Your task to perform on an android device: Clear the shopping cart on walmart.com. Add "razer naga" to the cart on walmart.com Image 0: 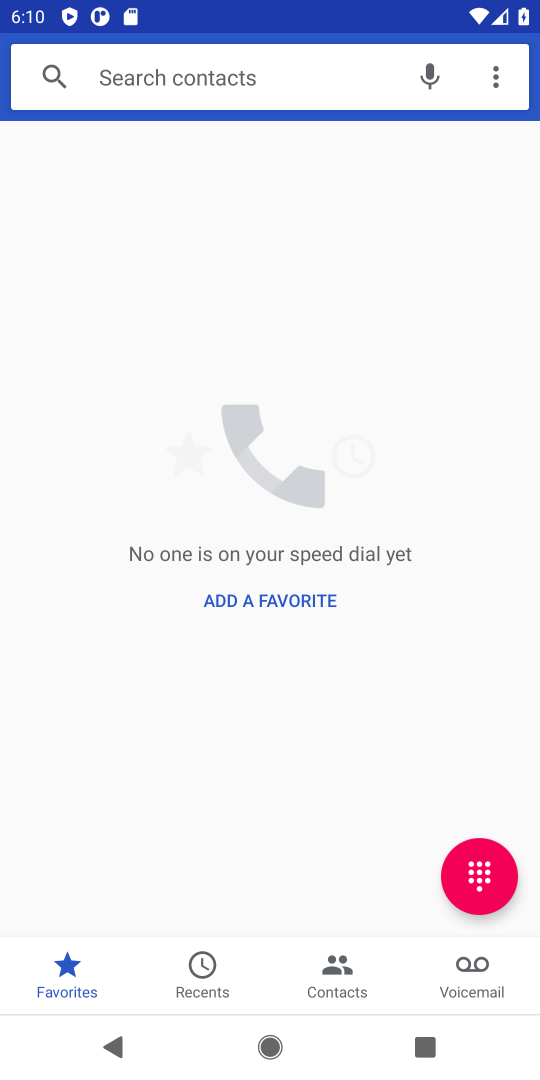
Step 0: press home button
Your task to perform on an android device: Clear the shopping cart on walmart.com. Add "razer naga" to the cart on walmart.com Image 1: 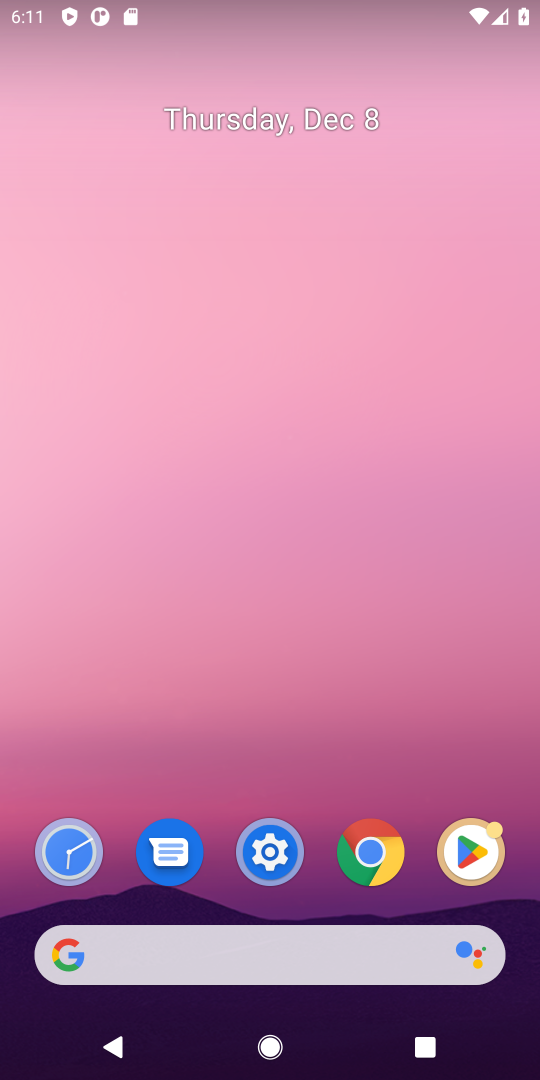
Step 1: click (191, 983)
Your task to perform on an android device: Clear the shopping cart on walmart.com. Add "razer naga" to the cart on walmart.com Image 2: 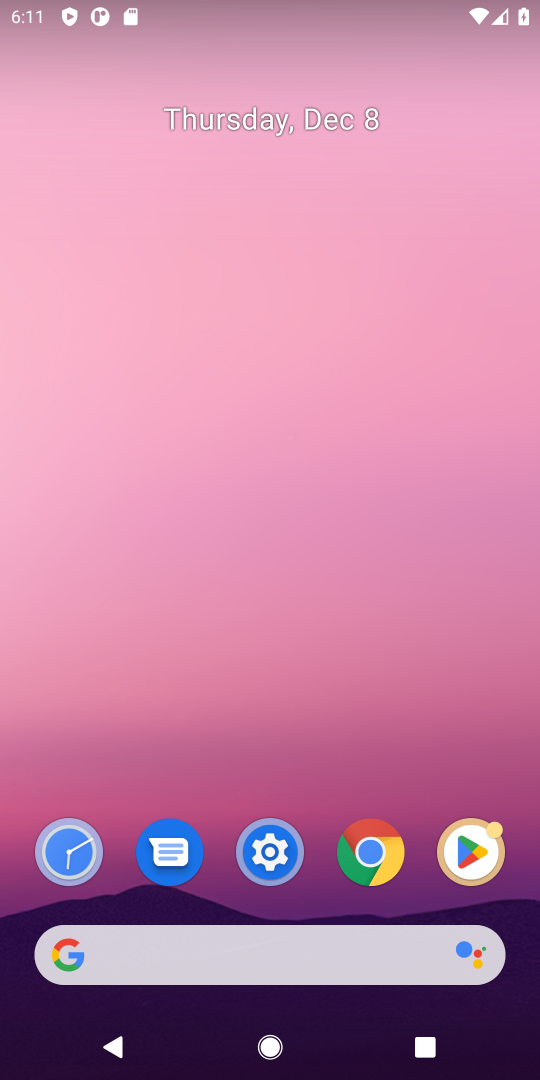
Step 2: click (222, 962)
Your task to perform on an android device: Clear the shopping cart on walmart.com. Add "razer naga" to the cart on walmart.com Image 3: 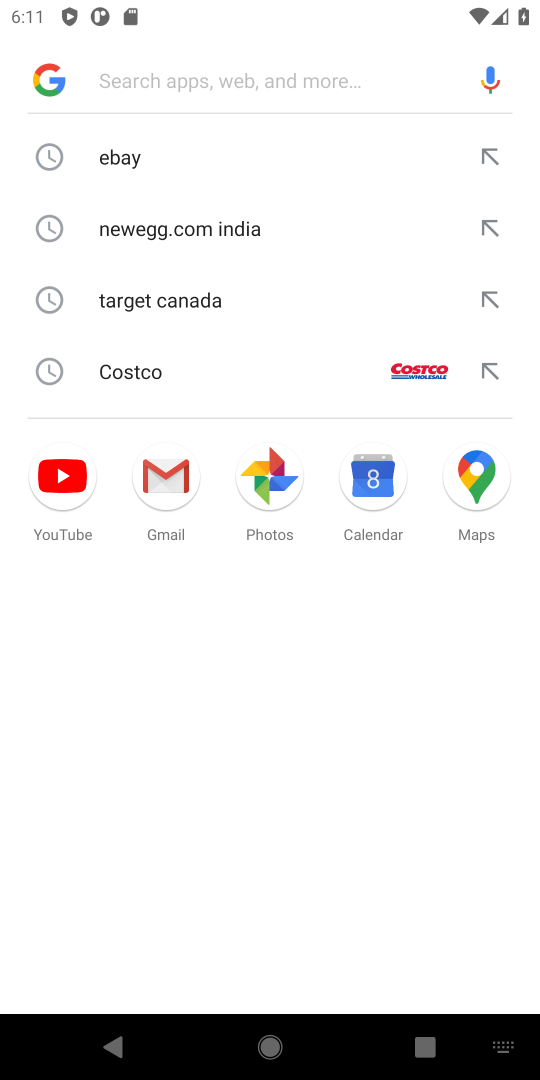
Step 3: type "walmart"
Your task to perform on an android device: Clear the shopping cart on walmart.com. Add "razer naga" to the cart on walmart.com Image 4: 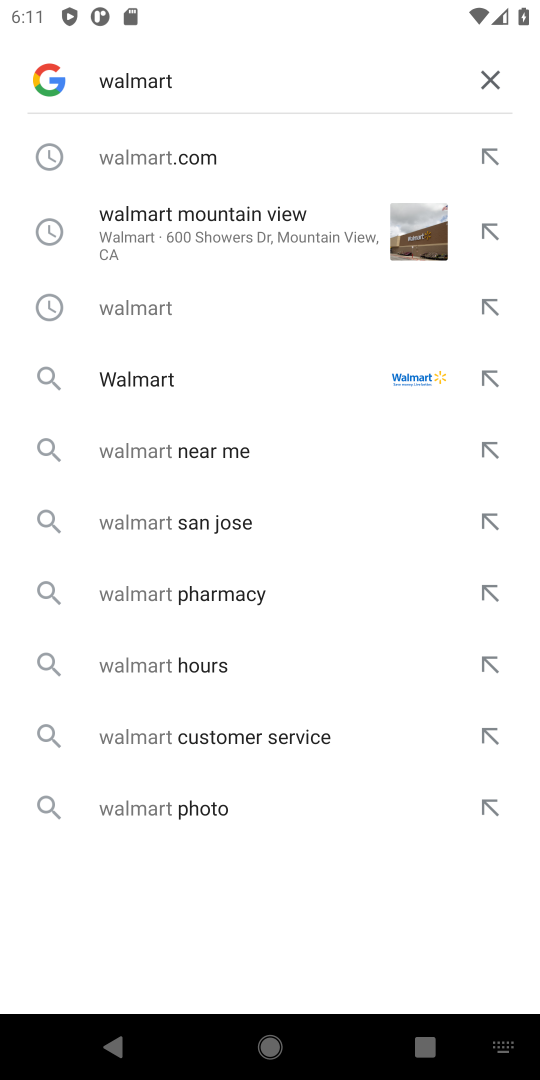
Step 4: click (178, 167)
Your task to perform on an android device: Clear the shopping cart on walmart.com. Add "razer naga" to the cart on walmart.com Image 5: 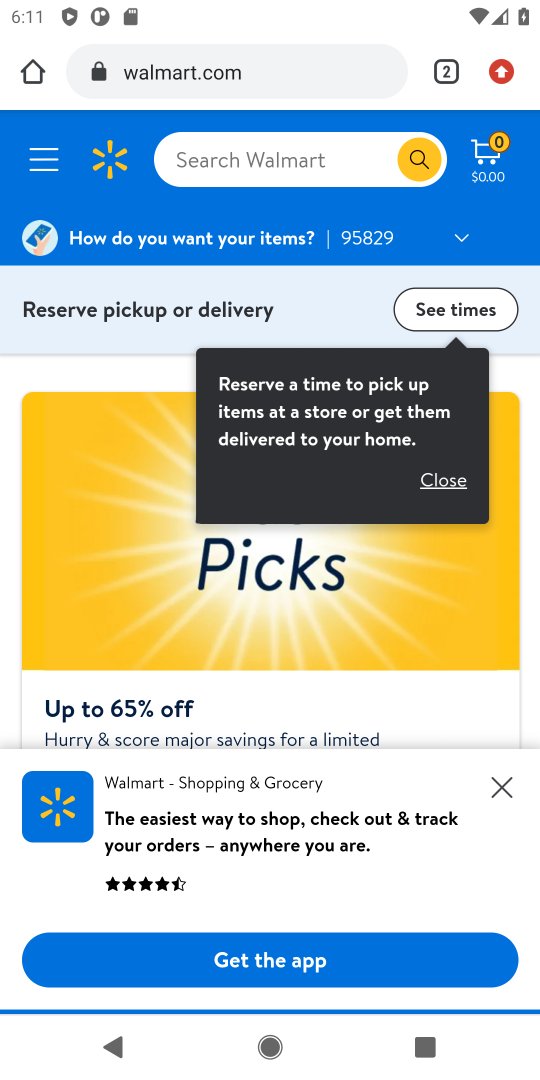
Step 5: click (178, 167)
Your task to perform on an android device: Clear the shopping cart on walmart.com. Add "razer naga" to the cart on walmart.com Image 6: 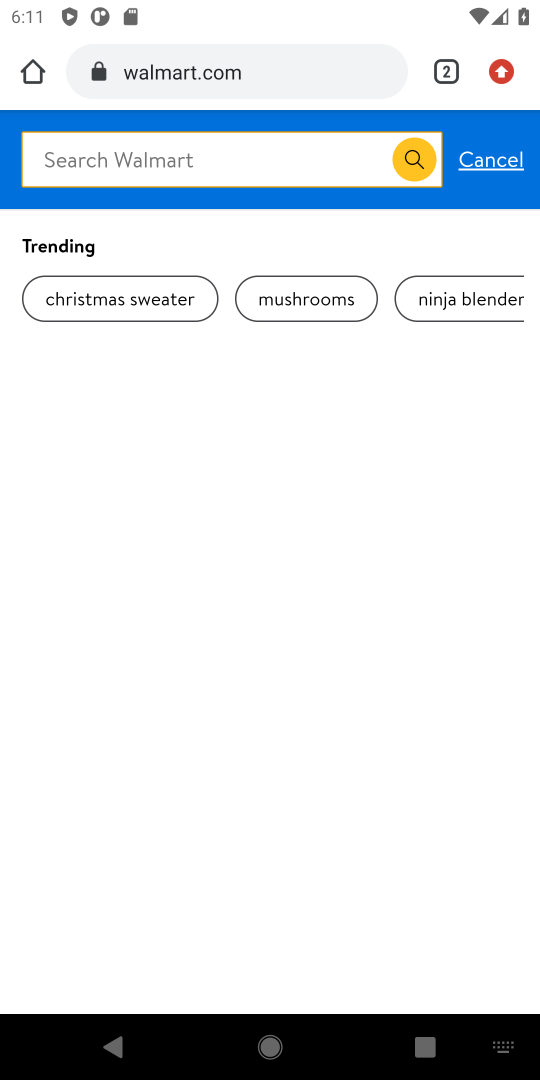
Step 6: type "razer naga"
Your task to perform on an android device: Clear the shopping cart on walmart.com. Add "razer naga" to the cart on walmart.com Image 7: 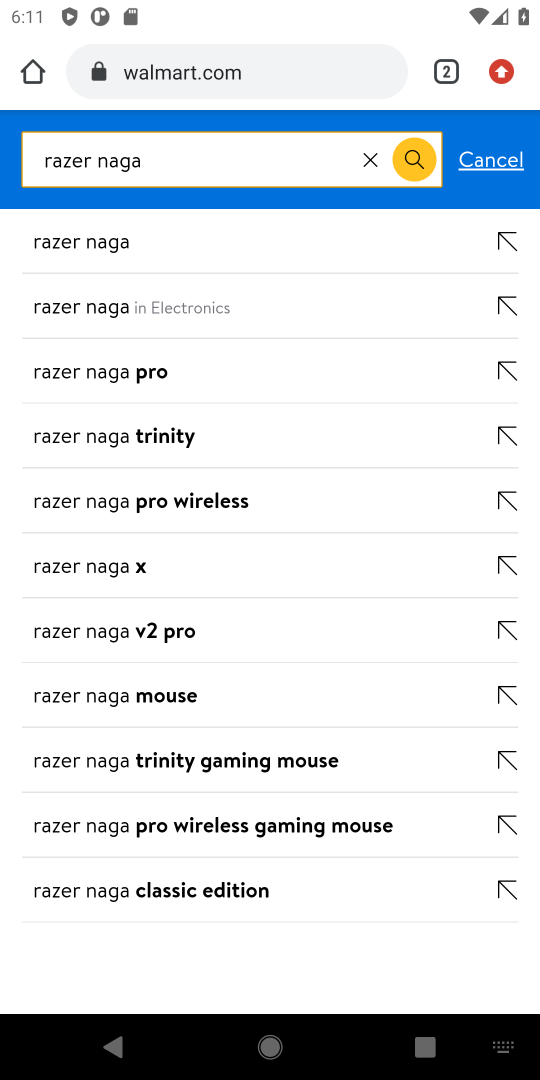
Step 7: click (181, 232)
Your task to perform on an android device: Clear the shopping cart on walmart.com. Add "razer naga" to the cart on walmart.com Image 8: 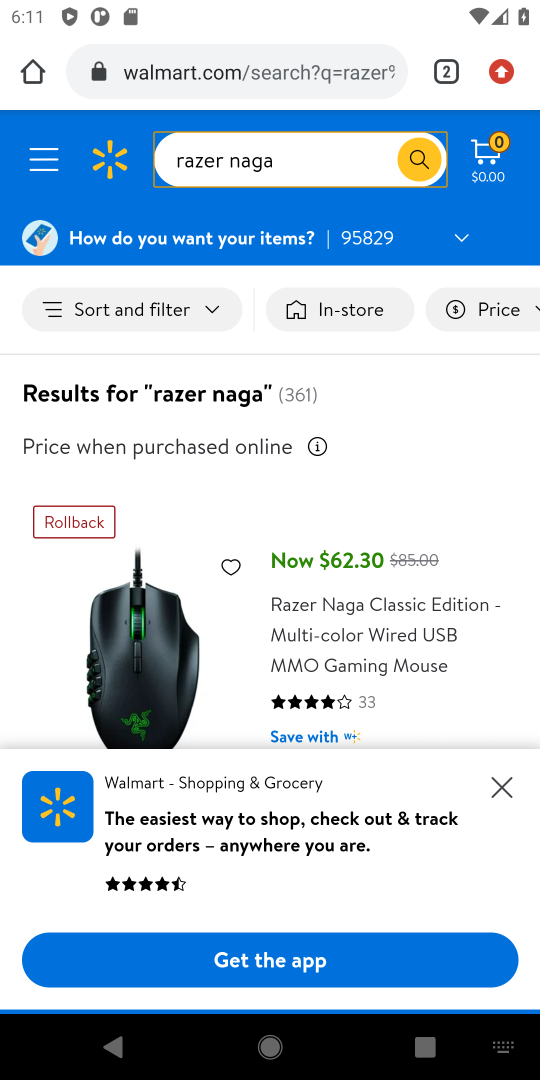
Step 8: click (495, 804)
Your task to perform on an android device: Clear the shopping cart on walmart.com. Add "razer naga" to the cart on walmart.com Image 9: 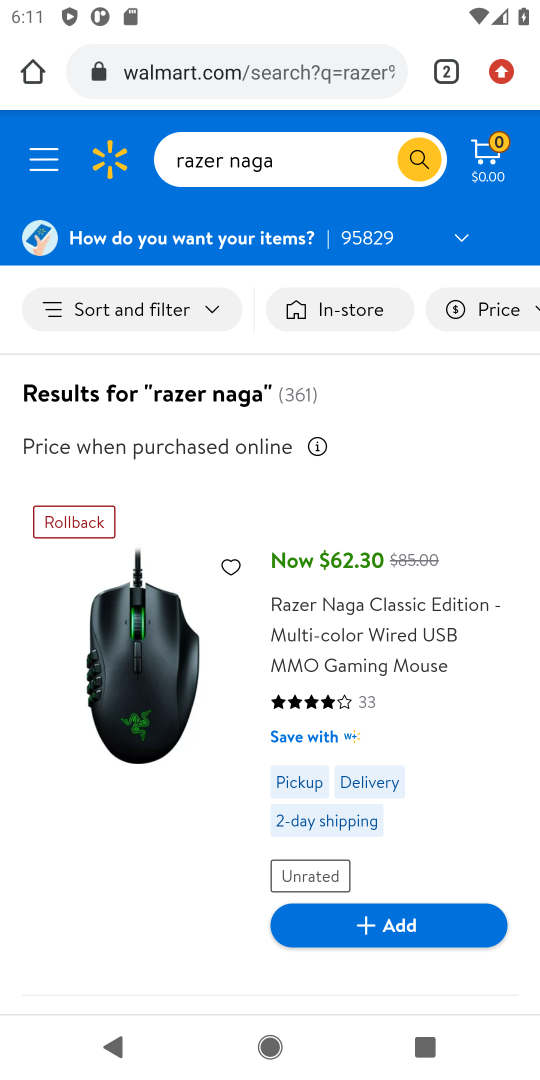
Step 9: click (390, 908)
Your task to perform on an android device: Clear the shopping cart on walmart.com. Add "razer naga" to the cart on walmart.com Image 10: 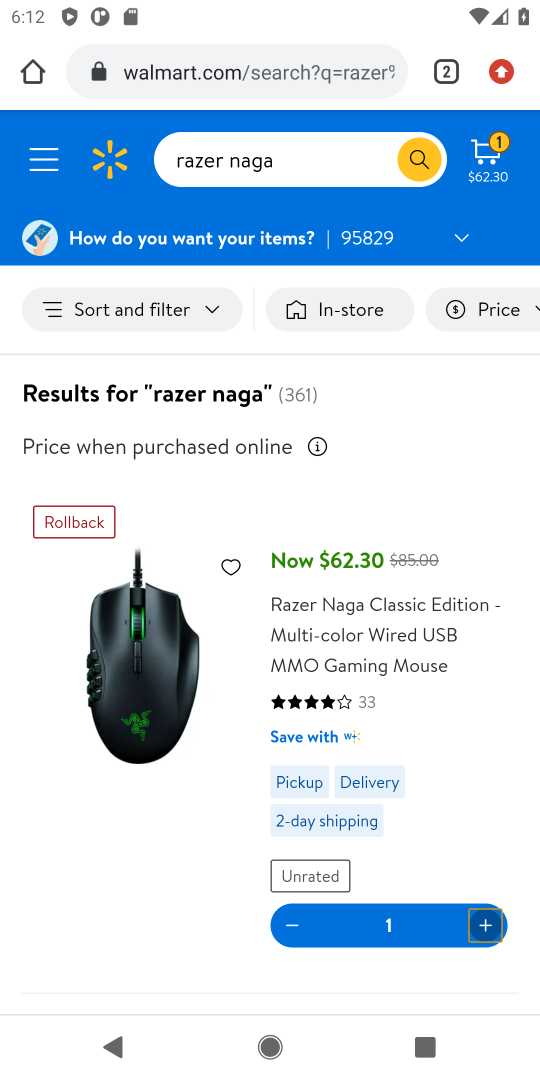
Step 10: task complete